Your task to perform on an android device: Go to settings Image 0: 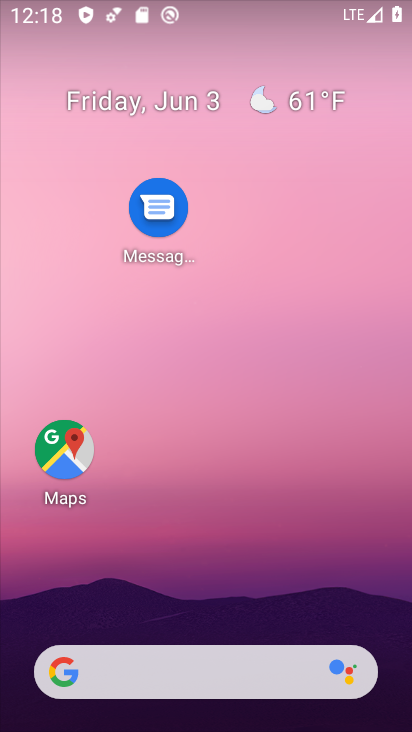
Step 0: drag from (222, 631) to (153, 7)
Your task to perform on an android device: Go to settings Image 1: 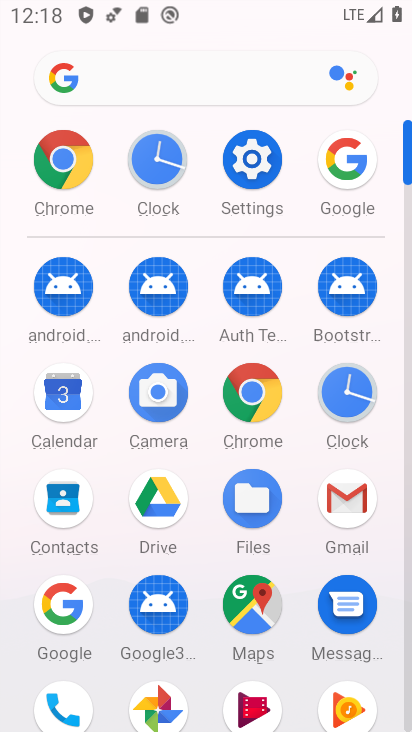
Step 1: click (239, 164)
Your task to perform on an android device: Go to settings Image 2: 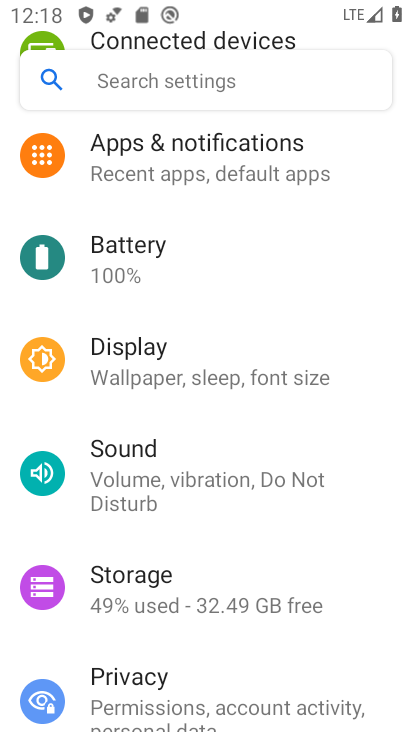
Step 2: task complete